Your task to perform on an android device: turn notification dots on Image 0: 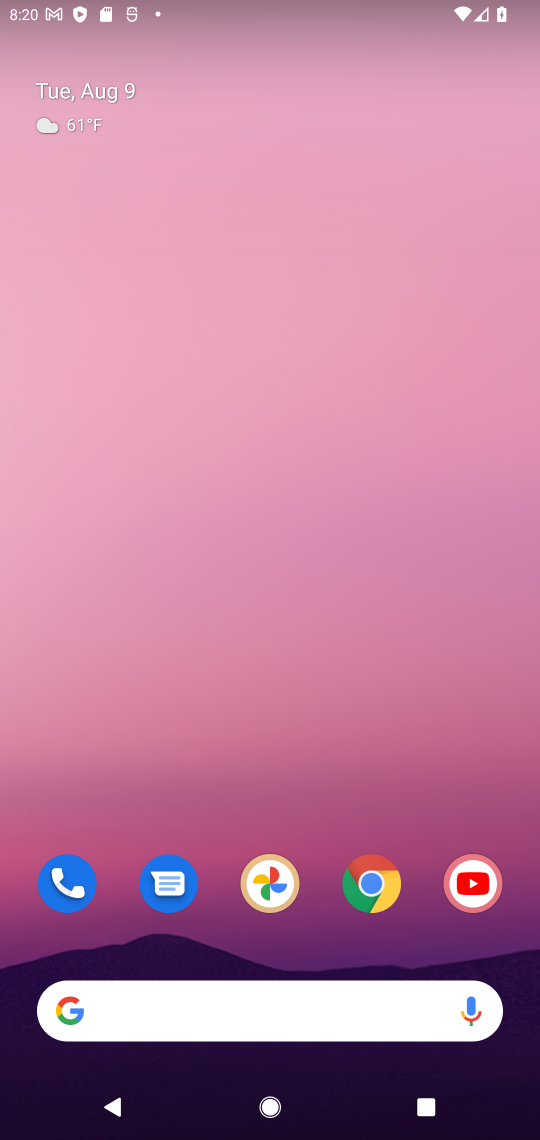
Step 0: drag from (308, 930) to (352, 0)
Your task to perform on an android device: turn notification dots on Image 1: 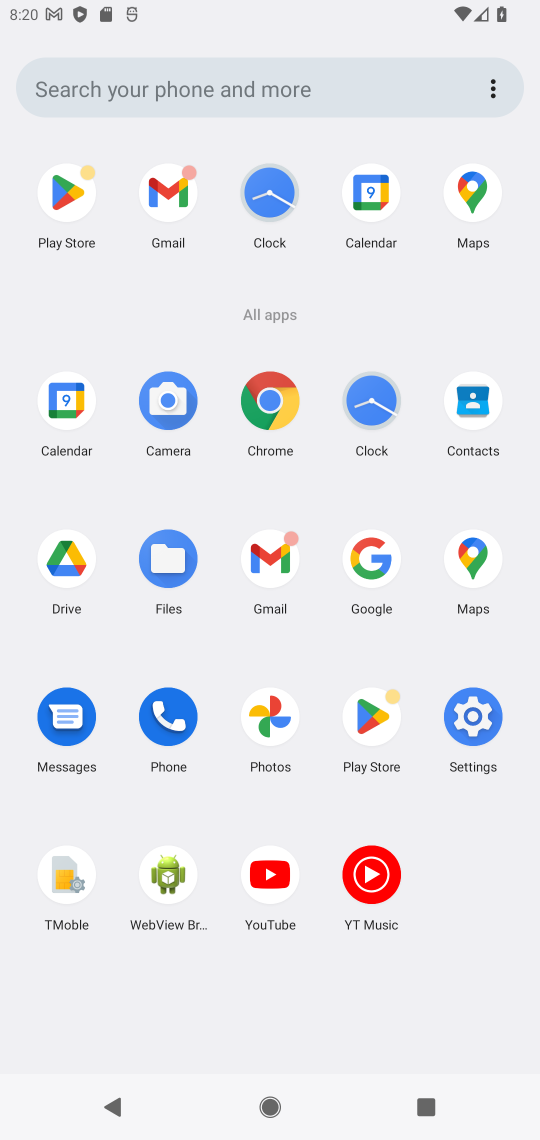
Step 1: click (479, 703)
Your task to perform on an android device: turn notification dots on Image 2: 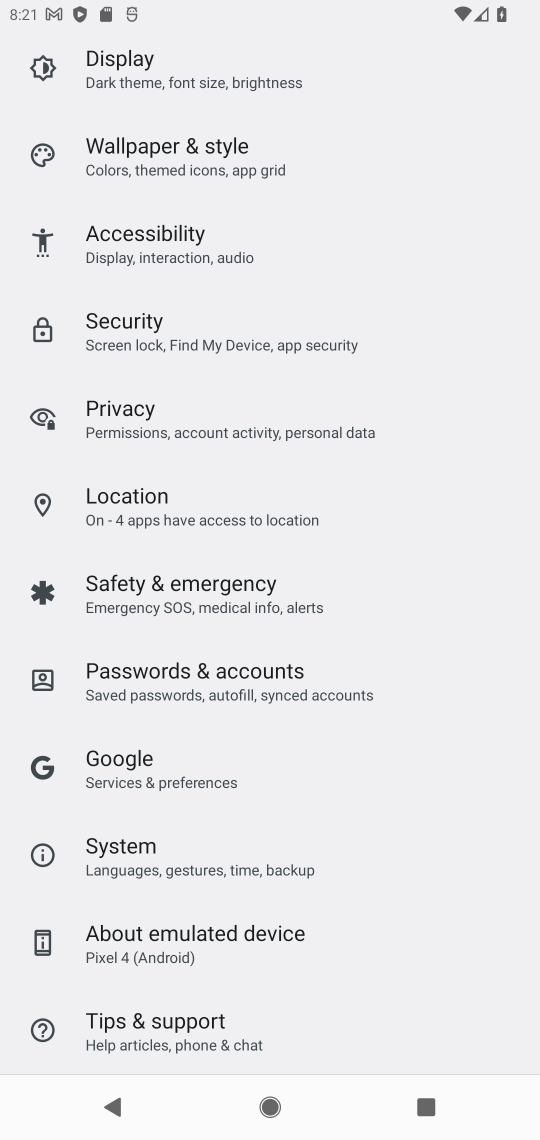
Step 2: drag from (245, 257) to (258, 861)
Your task to perform on an android device: turn notification dots on Image 3: 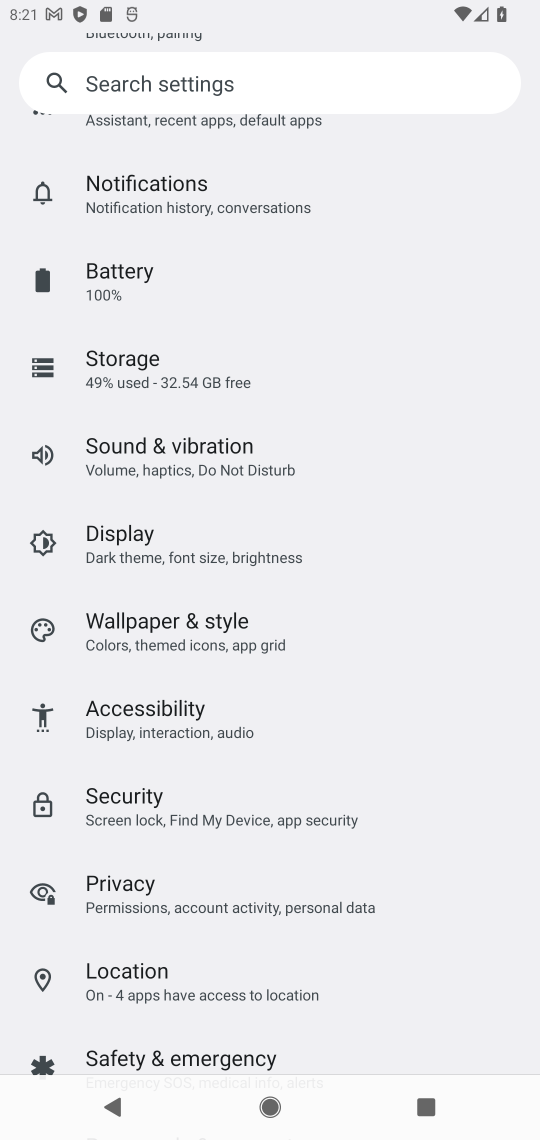
Step 3: click (142, 210)
Your task to perform on an android device: turn notification dots on Image 4: 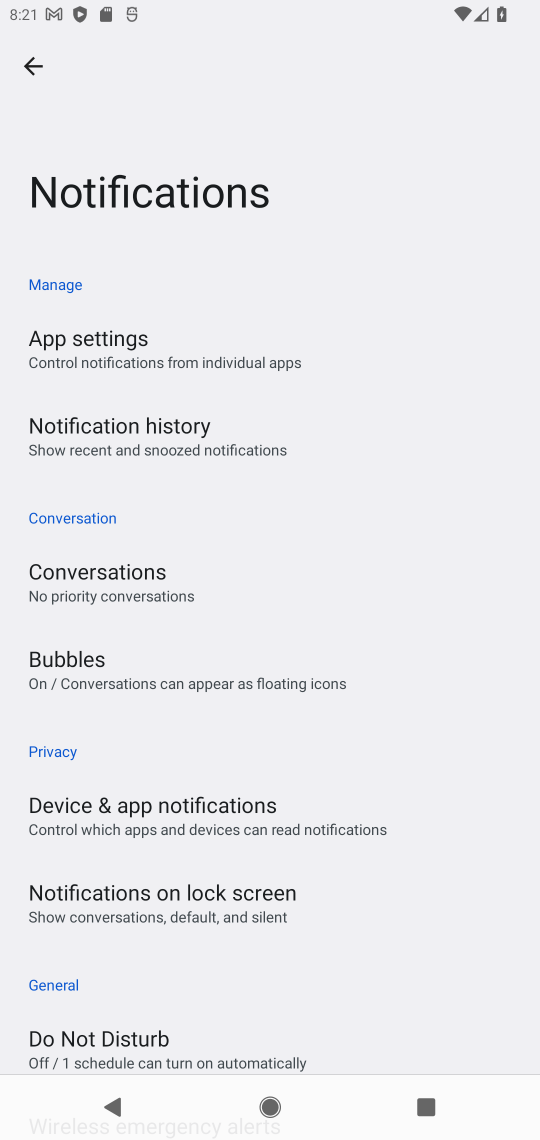
Step 4: task complete